Your task to perform on an android device: find snoozed emails in the gmail app Image 0: 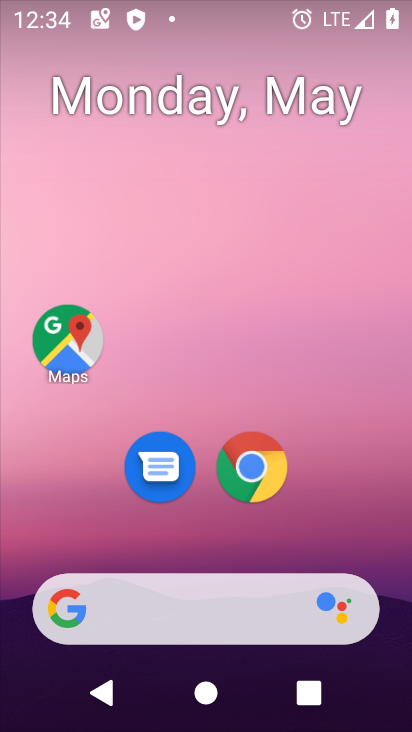
Step 0: drag from (381, 565) to (385, 45)
Your task to perform on an android device: find snoozed emails in the gmail app Image 1: 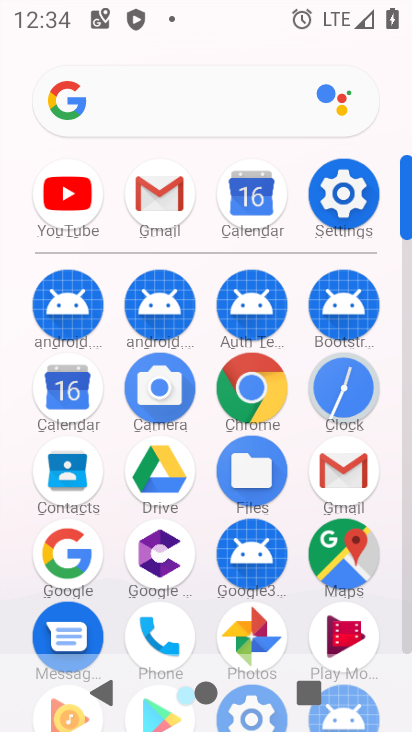
Step 1: click (155, 197)
Your task to perform on an android device: find snoozed emails in the gmail app Image 2: 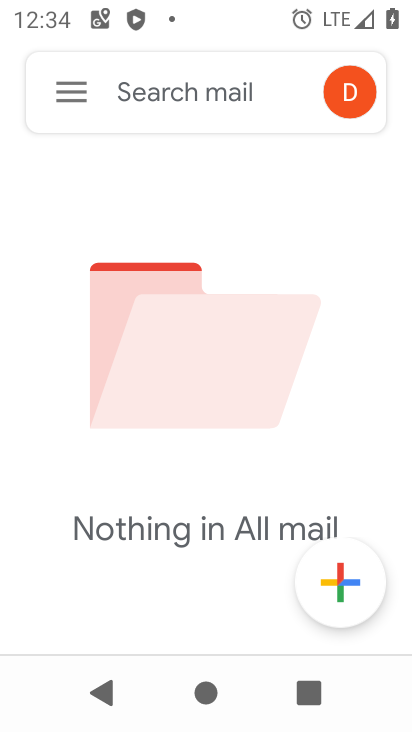
Step 2: click (71, 96)
Your task to perform on an android device: find snoozed emails in the gmail app Image 3: 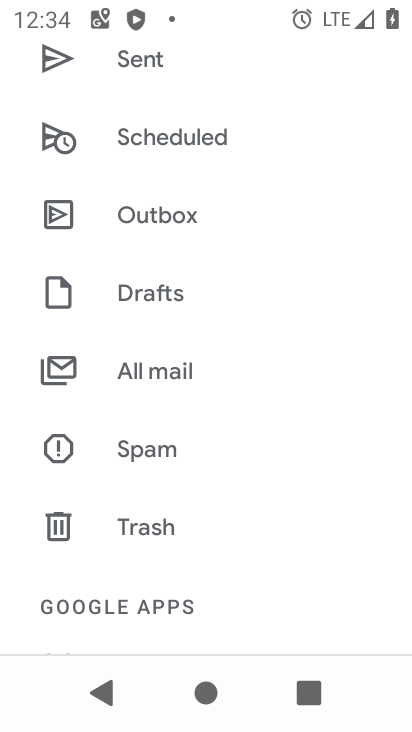
Step 3: drag from (229, 226) to (209, 573)
Your task to perform on an android device: find snoozed emails in the gmail app Image 4: 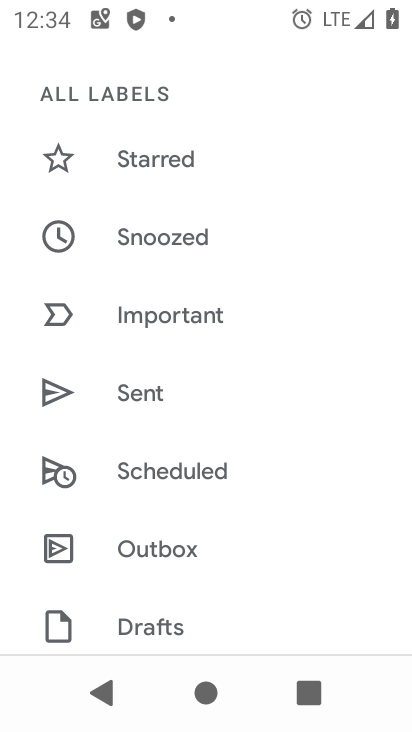
Step 4: click (165, 236)
Your task to perform on an android device: find snoozed emails in the gmail app Image 5: 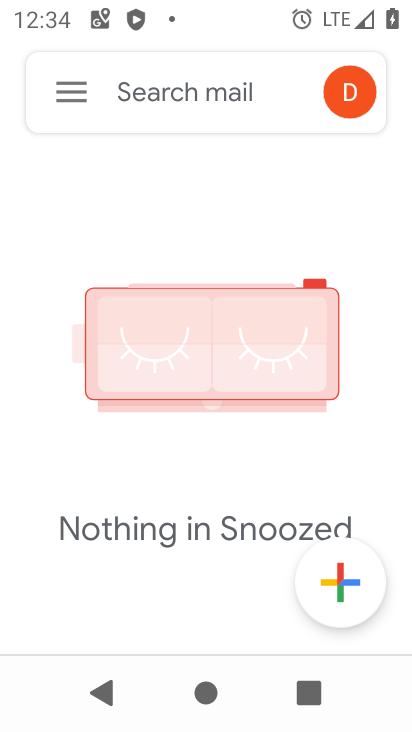
Step 5: task complete